Your task to perform on an android device: Go to notification settings Image 0: 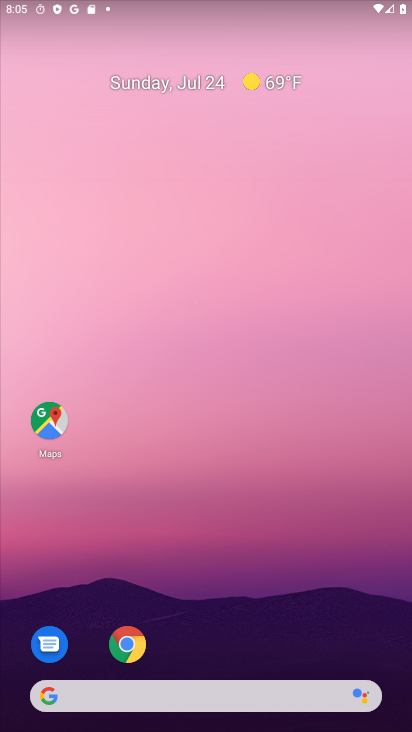
Step 0: drag from (100, 685) to (149, 286)
Your task to perform on an android device: Go to notification settings Image 1: 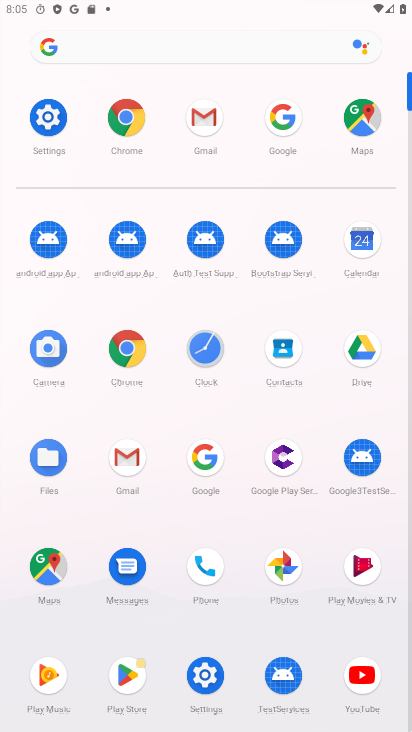
Step 1: click (35, 125)
Your task to perform on an android device: Go to notification settings Image 2: 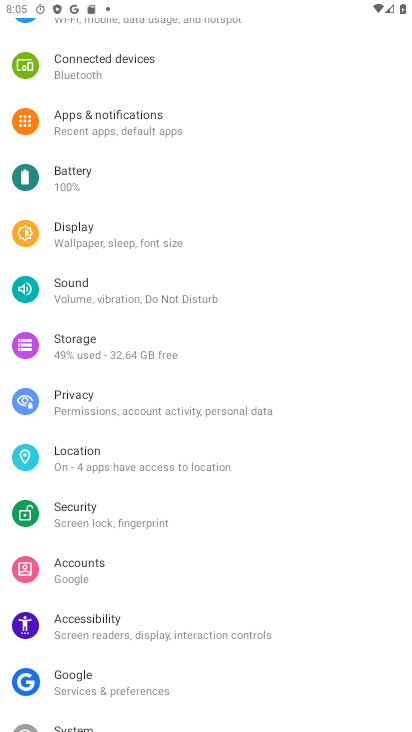
Step 2: click (129, 115)
Your task to perform on an android device: Go to notification settings Image 3: 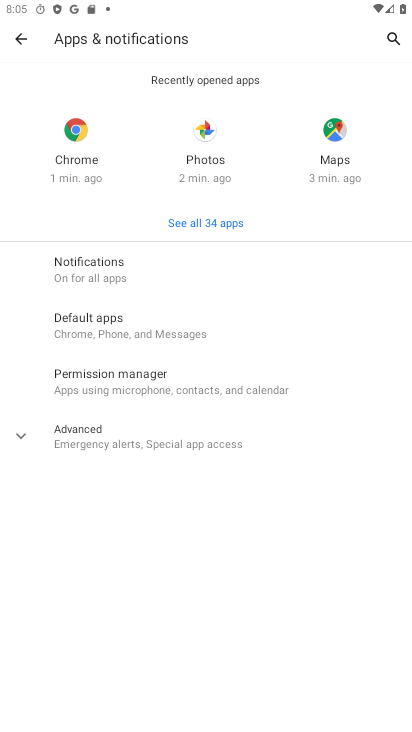
Step 3: click (158, 435)
Your task to perform on an android device: Go to notification settings Image 4: 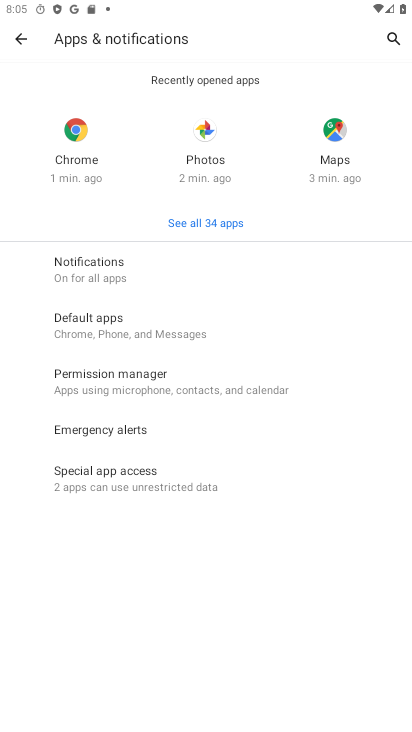
Step 4: task complete